Your task to perform on an android device: open app "Nova Launcher" (install if not already installed) Image 0: 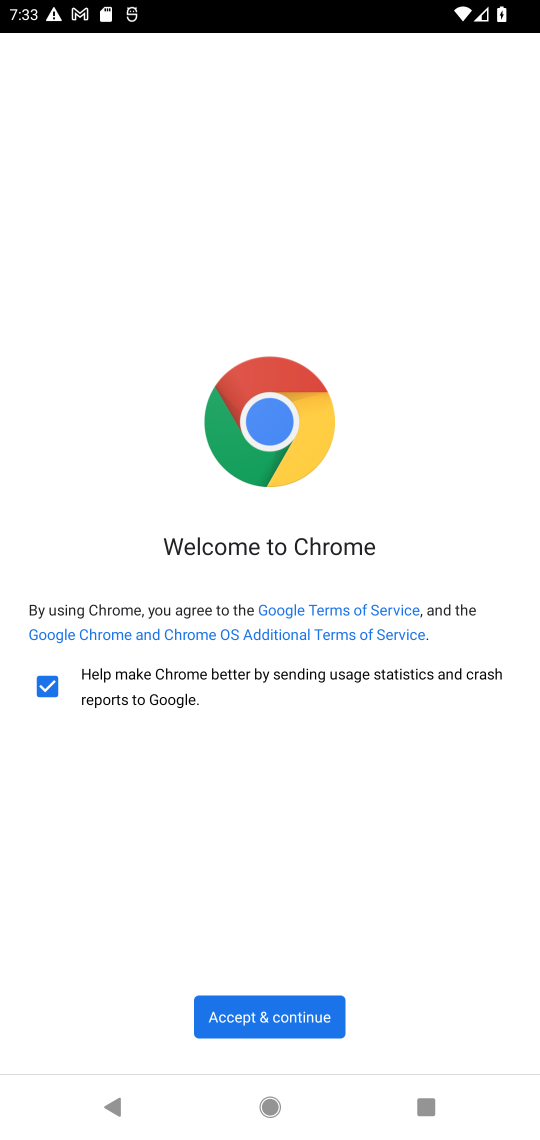
Step 0: press home button
Your task to perform on an android device: open app "Nova Launcher" (install if not already installed) Image 1: 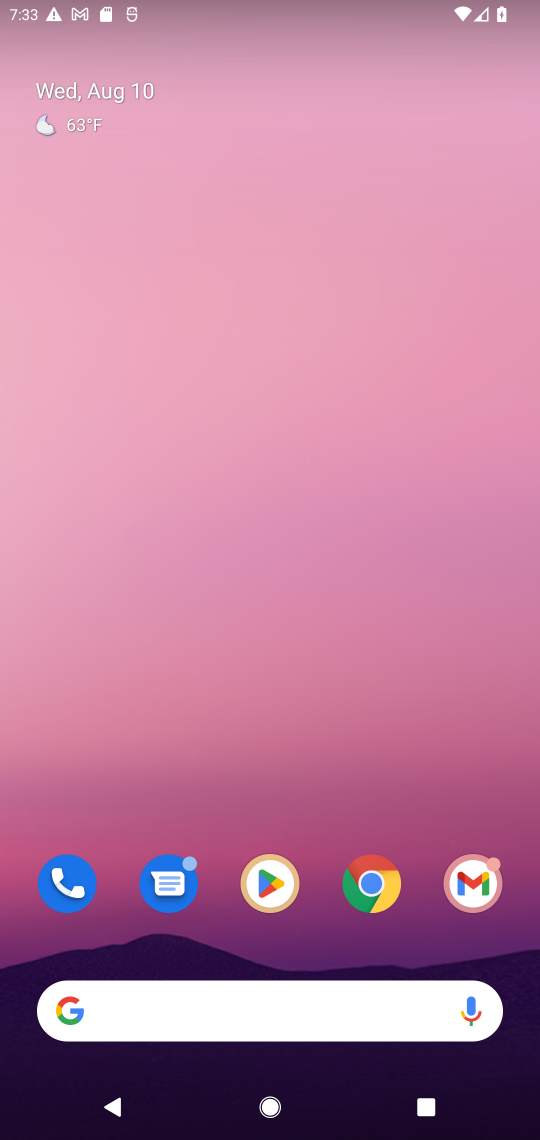
Step 1: click (256, 880)
Your task to perform on an android device: open app "Nova Launcher" (install if not already installed) Image 2: 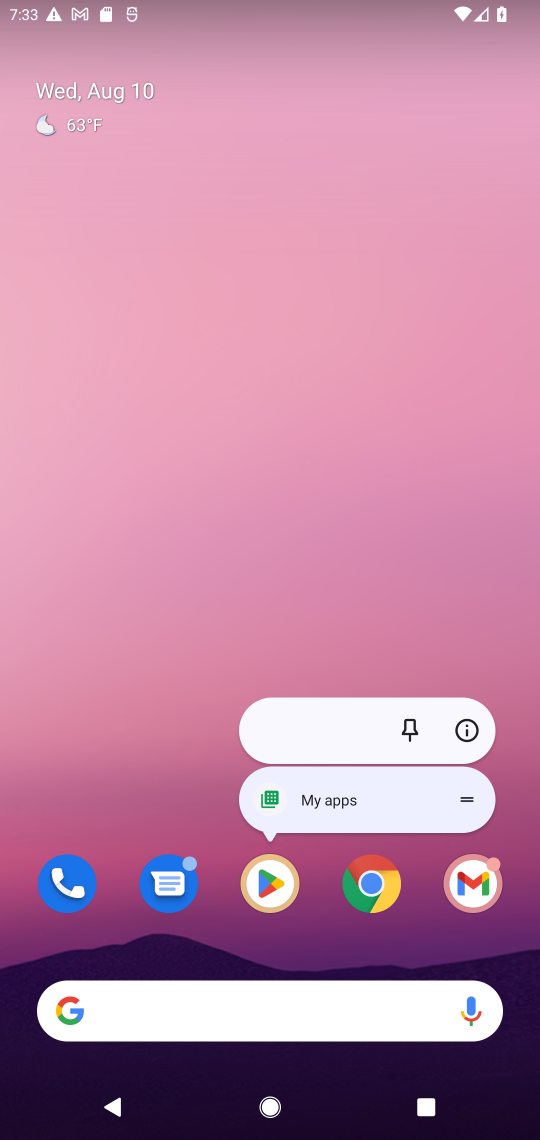
Step 2: click (275, 876)
Your task to perform on an android device: open app "Nova Launcher" (install if not already installed) Image 3: 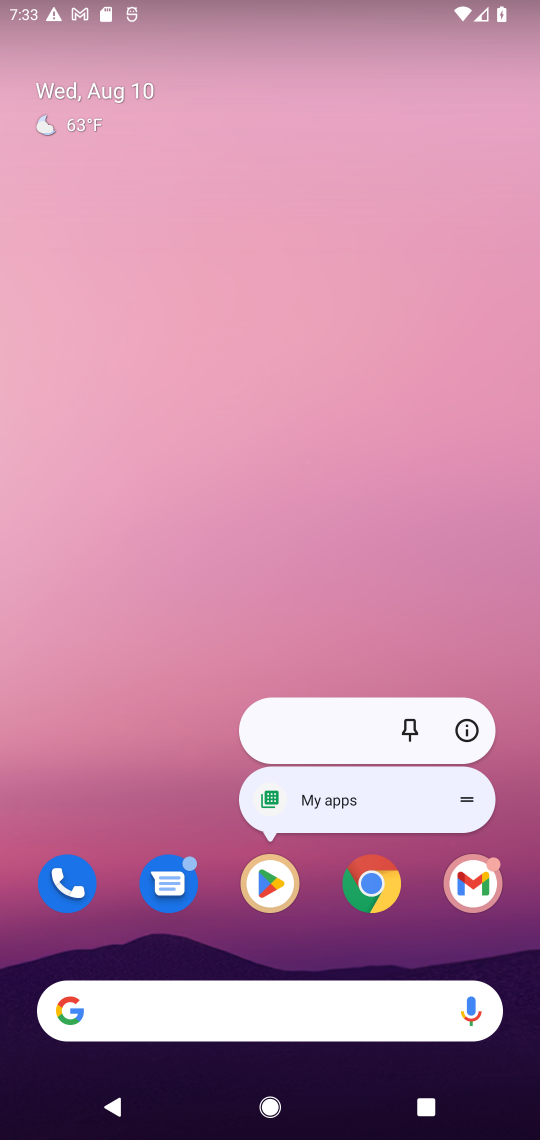
Step 3: click (274, 878)
Your task to perform on an android device: open app "Nova Launcher" (install if not already installed) Image 4: 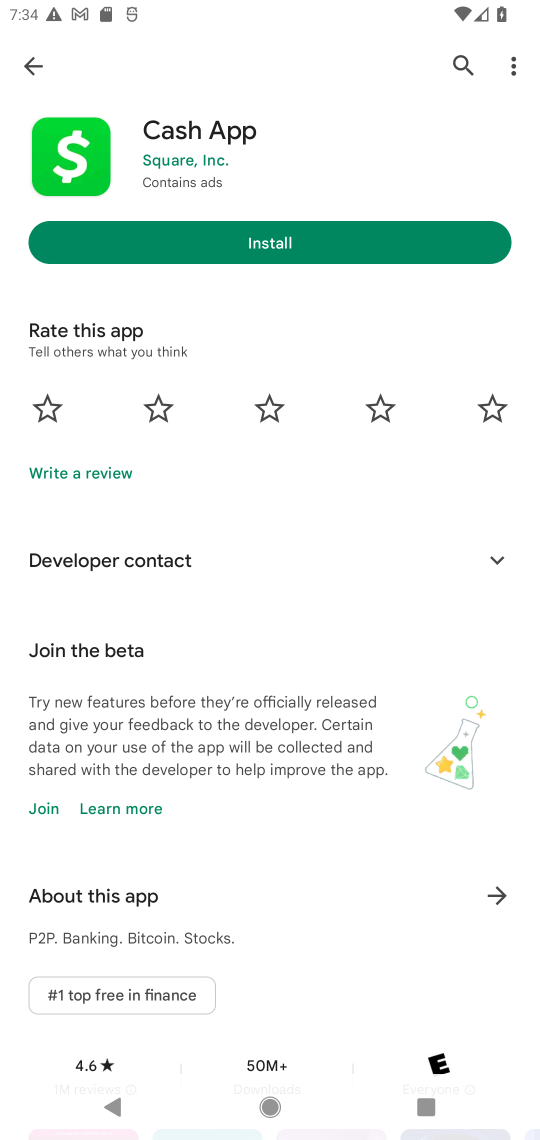
Step 4: click (460, 69)
Your task to perform on an android device: open app "Nova Launcher" (install if not already installed) Image 5: 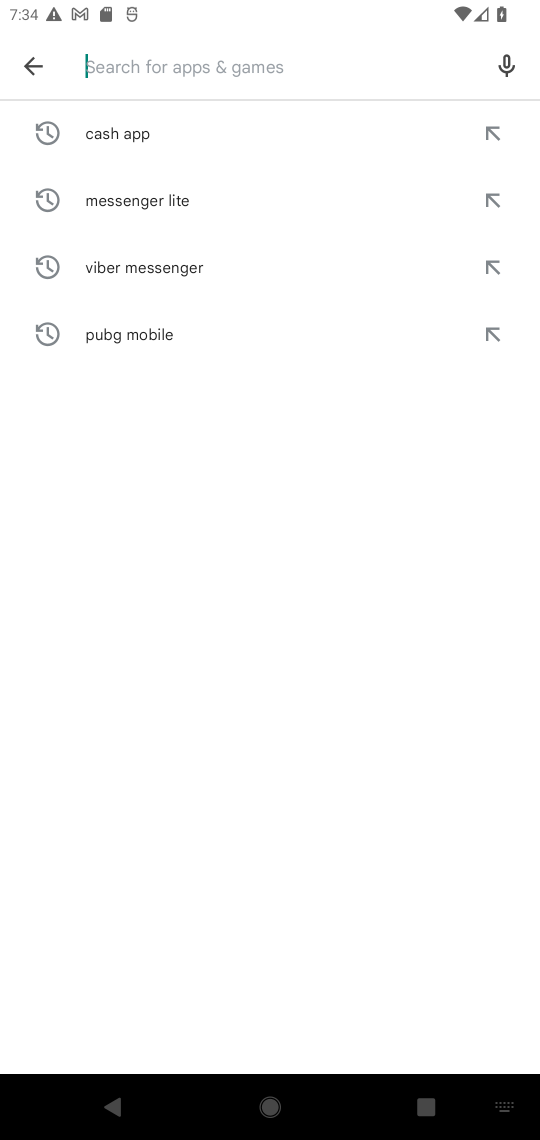
Step 5: type "Nova Launcher"
Your task to perform on an android device: open app "Nova Launcher" (install if not already installed) Image 6: 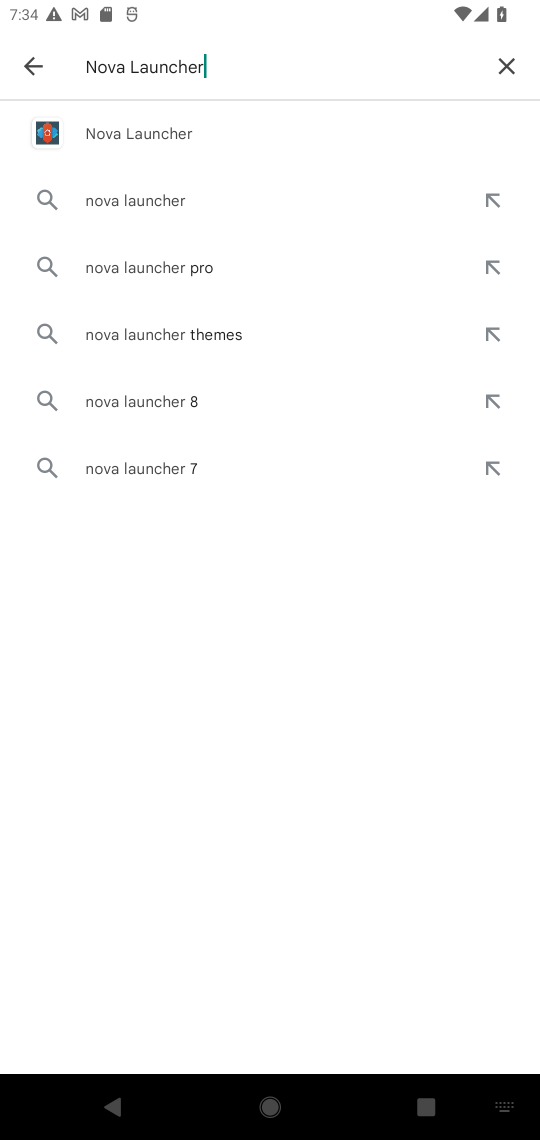
Step 6: click (142, 140)
Your task to perform on an android device: open app "Nova Launcher" (install if not already installed) Image 7: 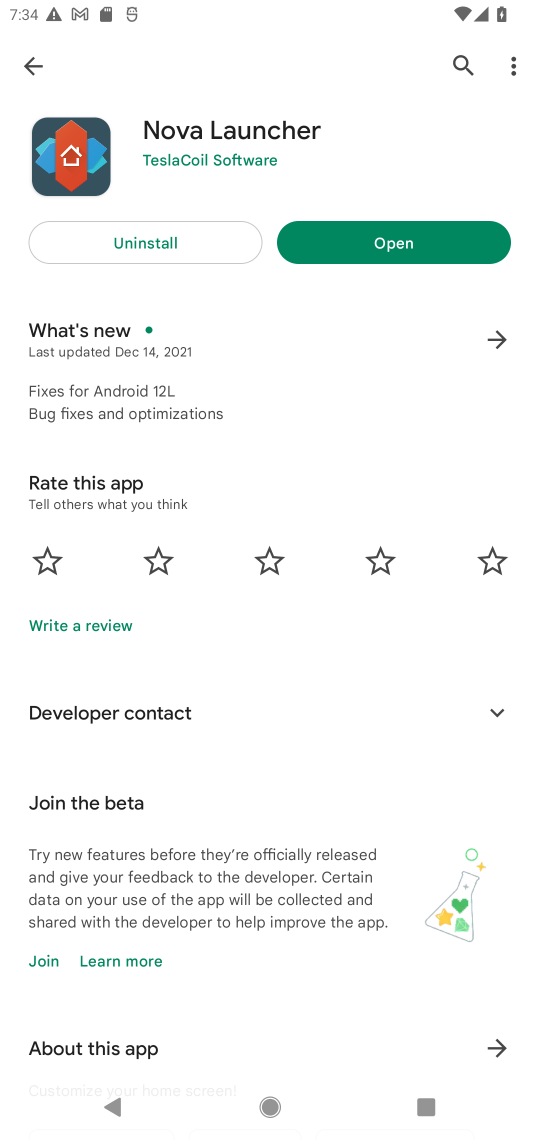
Step 7: click (318, 253)
Your task to perform on an android device: open app "Nova Launcher" (install if not already installed) Image 8: 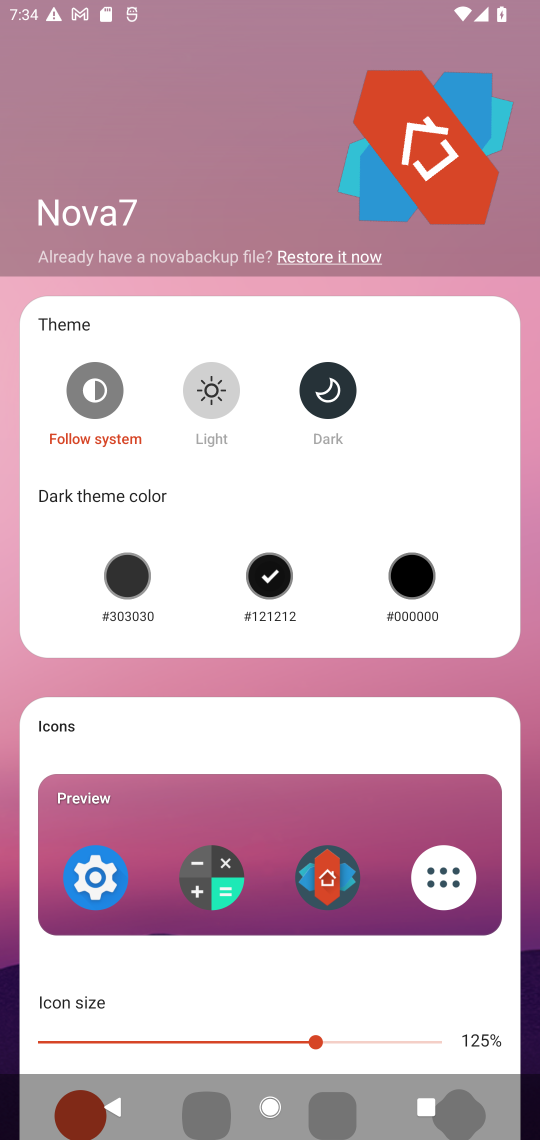
Step 8: task complete